Your task to perform on an android device: set default search engine in the chrome app Image 0: 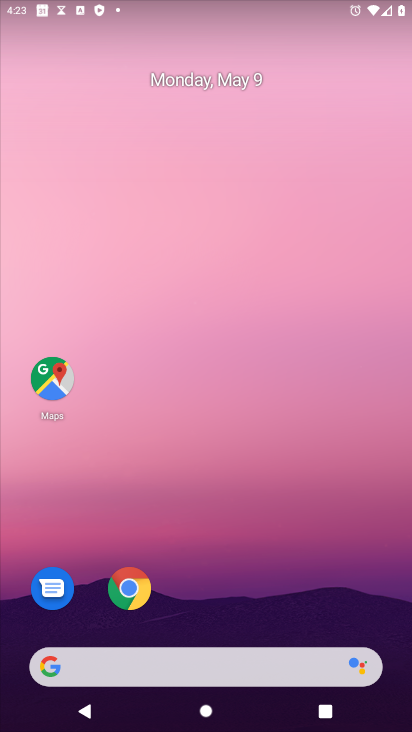
Step 0: click (133, 599)
Your task to perform on an android device: set default search engine in the chrome app Image 1: 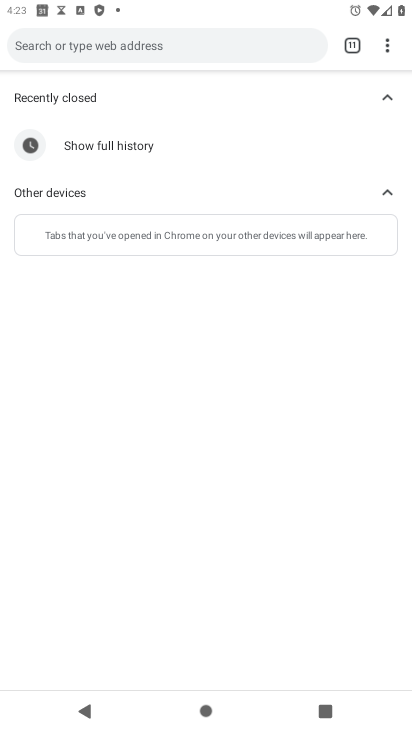
Step 1: click (383, 41)
Your task to perform on an android device: set default search engine in the chrome app Image 2: 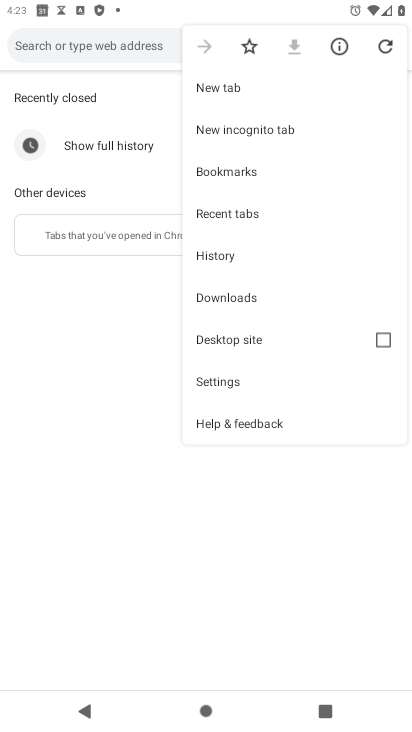
Step 2: click (255, 384)
Your task to perform on an android device: set default search engine in the chrome app Image 3: 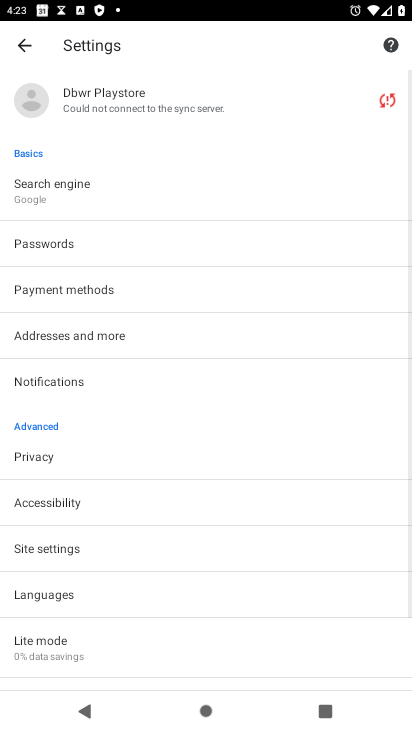
Step 3: click (92, 207)
Your task to perform on an android device: set default search engine in the chrome app Image 4: 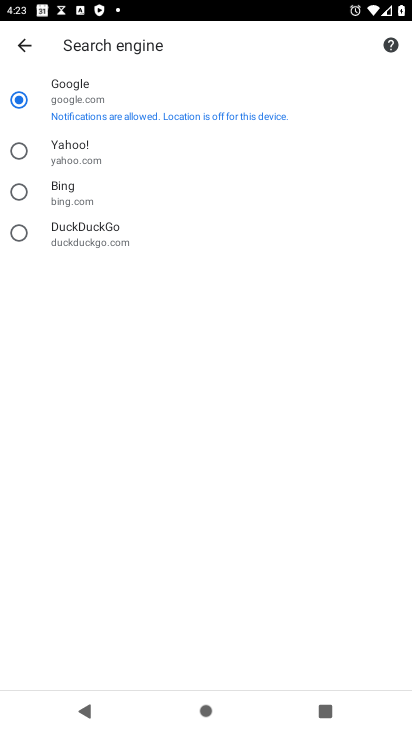
Step 4: click (162, 84)
Your task to perform on an android device: set default search engine in the chrome app Image 5: 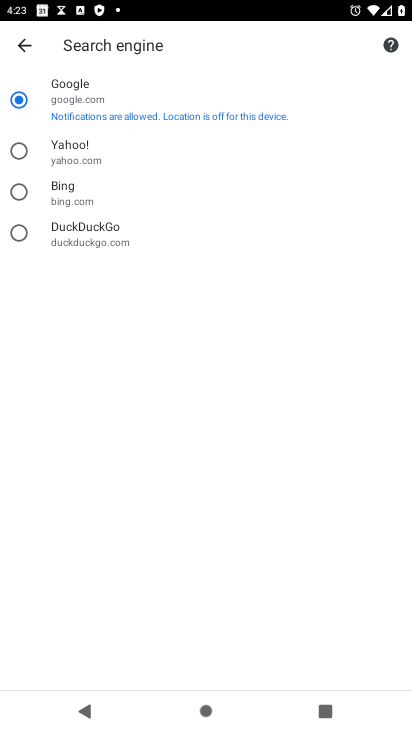
Step 5: task complete